Your task to perform on an android device: Check the news Image 0: 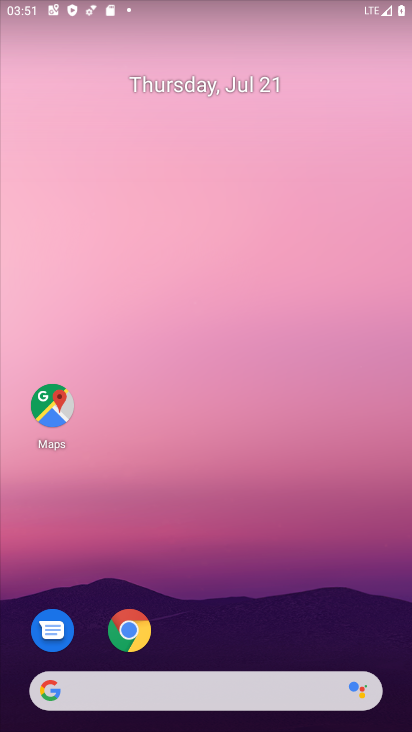
Step 0: click (190, 708)
Your task to perform on an android device: Check the news Image 1: 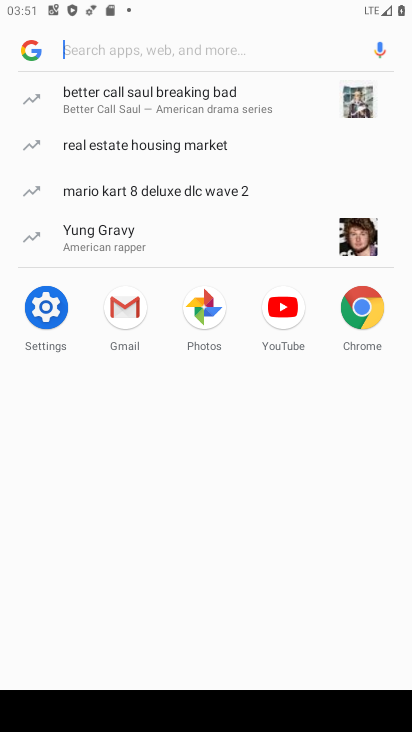
Step 1: click (35, 57)
Your task to perform on an android device: Check the news Image 2: 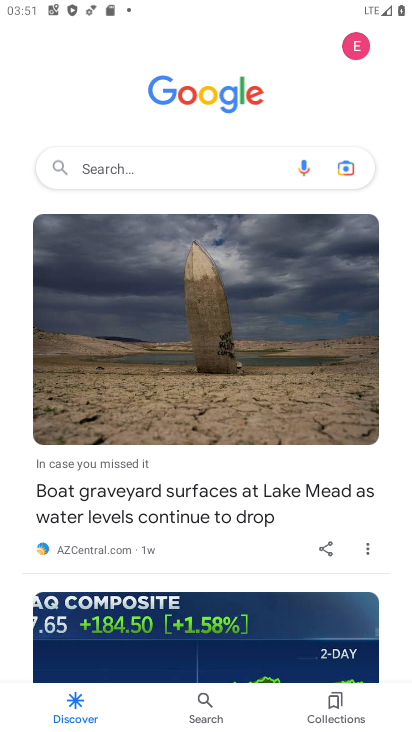
Step 2: task complete